Your task to perform on an android device: Search for usb-a on amazon, select the first entry, and add it to the cart. Image 0: 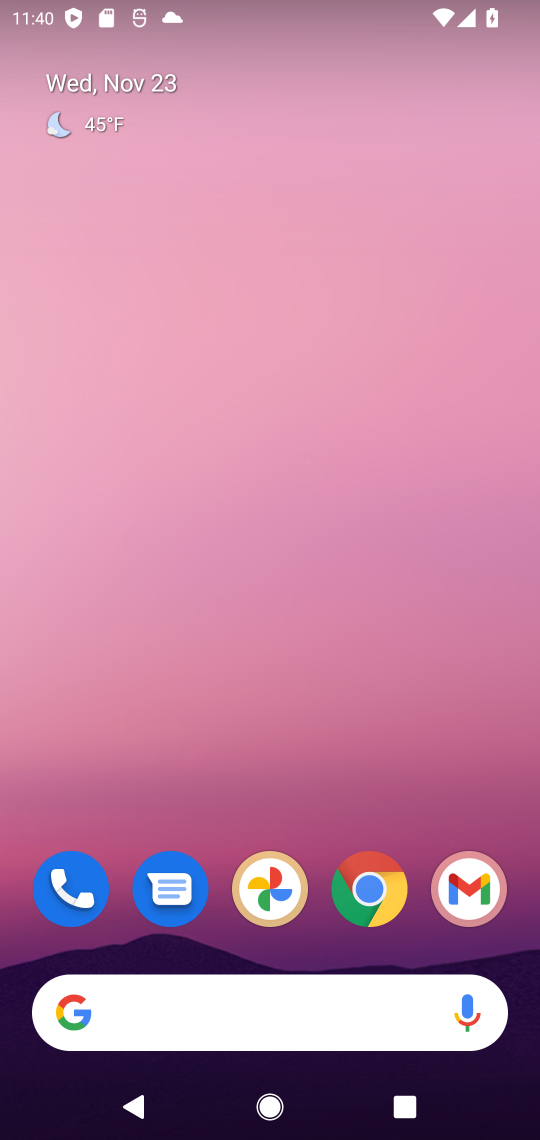
Step 0: click (370, 901)
Your task to perform on an android device: Search for usb-a on amazon, select the first entry, and add it to the cart. Image 1: 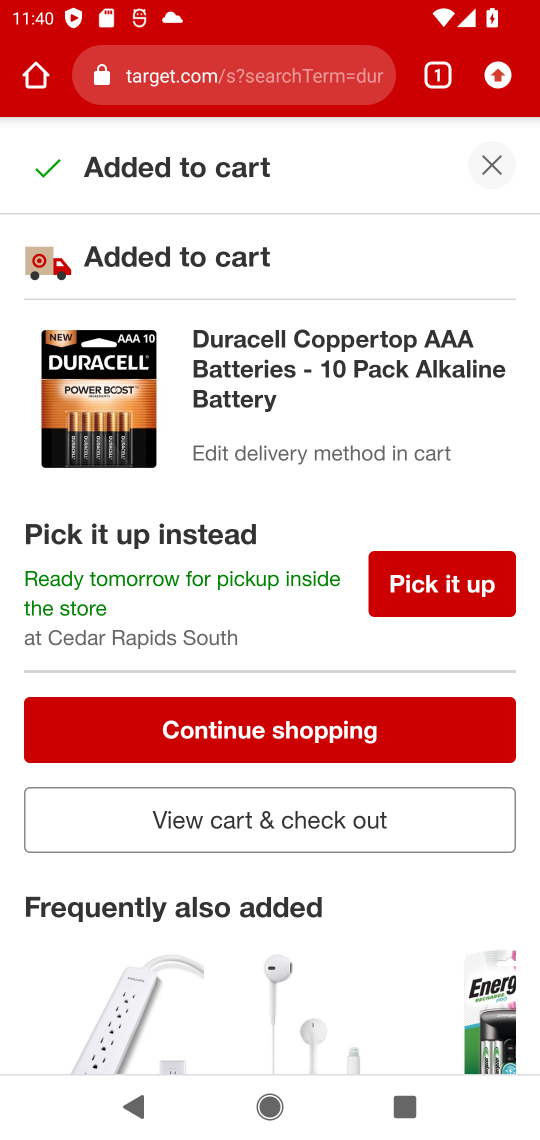
Step 1: click (199, 78)
Your task to perform on an android device: Search for usb-a on amazon, select the first entry, and add it to the cart. Image 2: 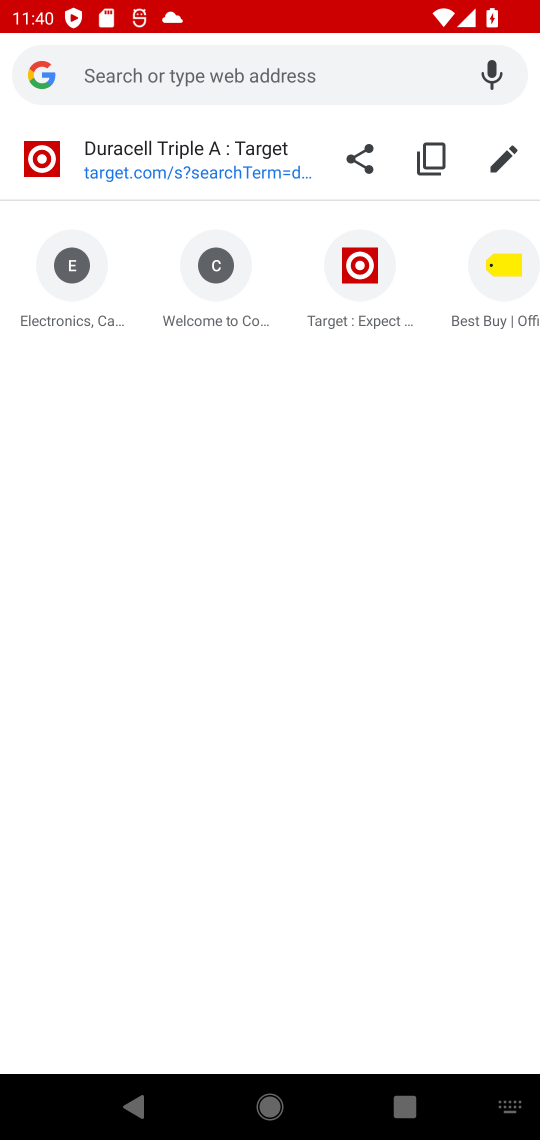
Step 2: type "amazon.com"
Your task to perform on an android device: Search for usb-a on amazon, select the first entry, and add it to the cart. Image 3: 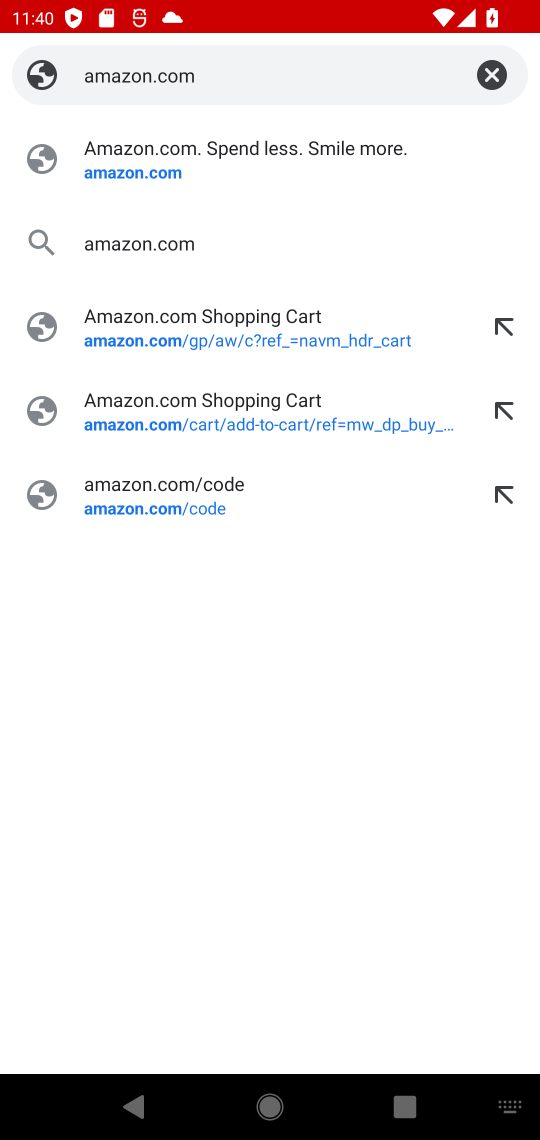
Step 3: click (124, 182)
Your task to perform on an android device: Search for usb-a on amazon, select the first entry, and add it to the cart. Image 4: 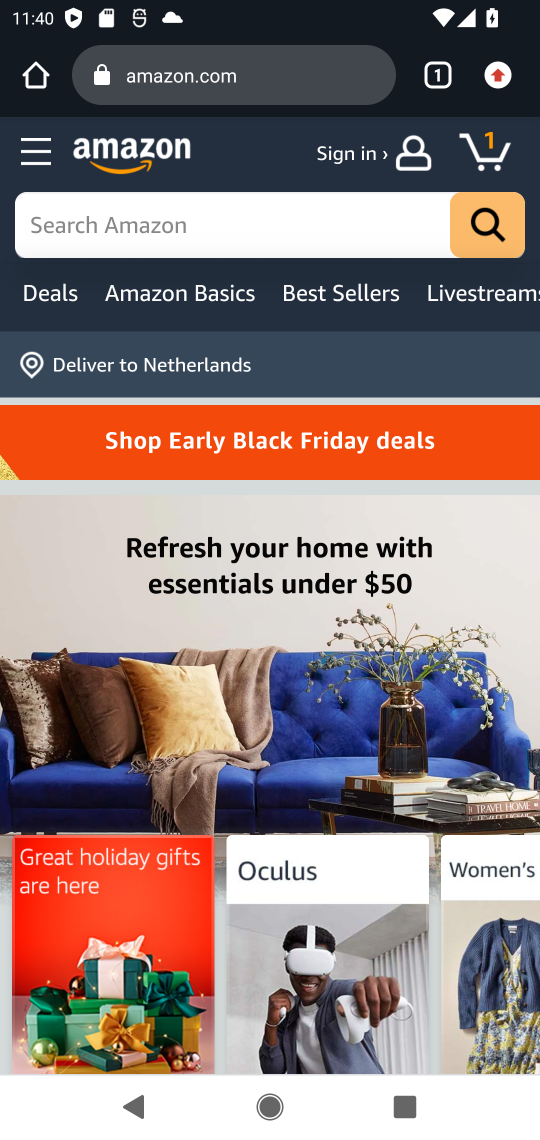
Step 4: click (121, 233)
Your task to perform on an android device: Search for usb-a on amazon, select the first entry, and add it to the cart. Image 5: 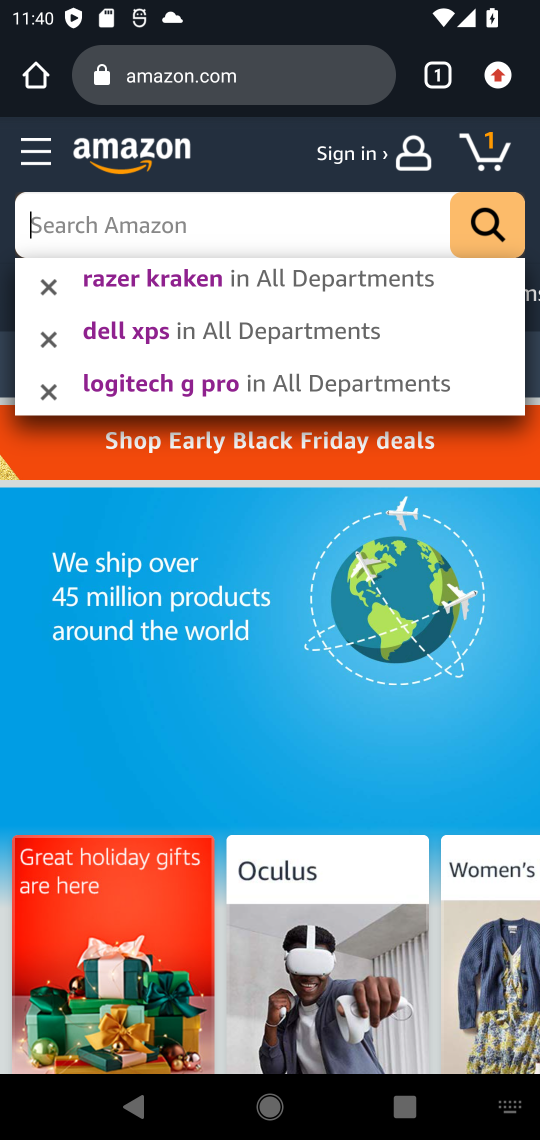
Step 5: type "usb-a "
Your task to perform on an android device: Search for usb-a on amazon, select the first entry, and add it to the cart. Image 6: 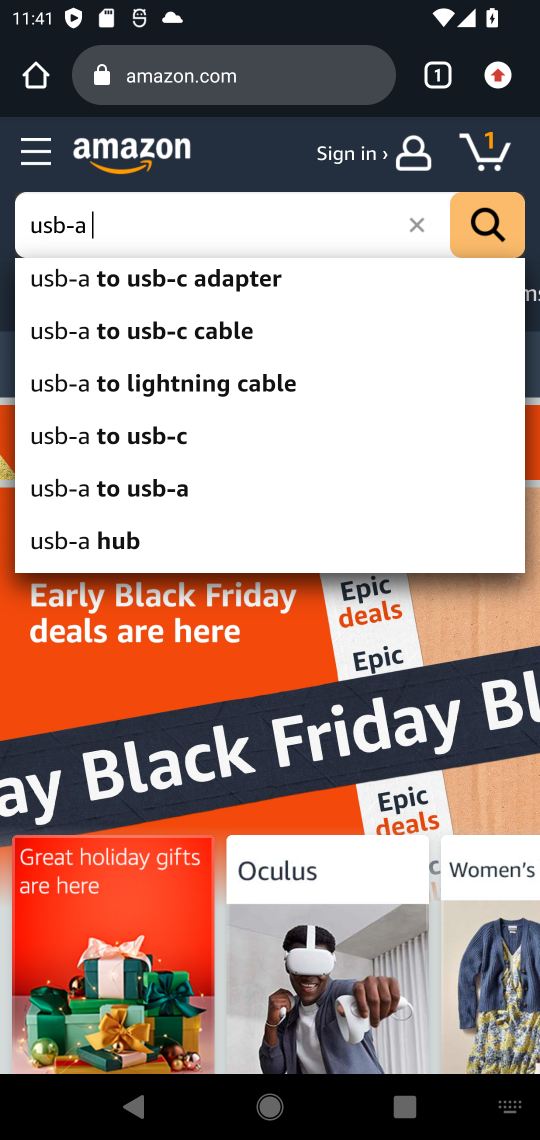
Step 6: click (484, 234)
Your task to perform on an android device: Search for usb-a on amazon, select the first entry, and add it to the cart. Image 7: 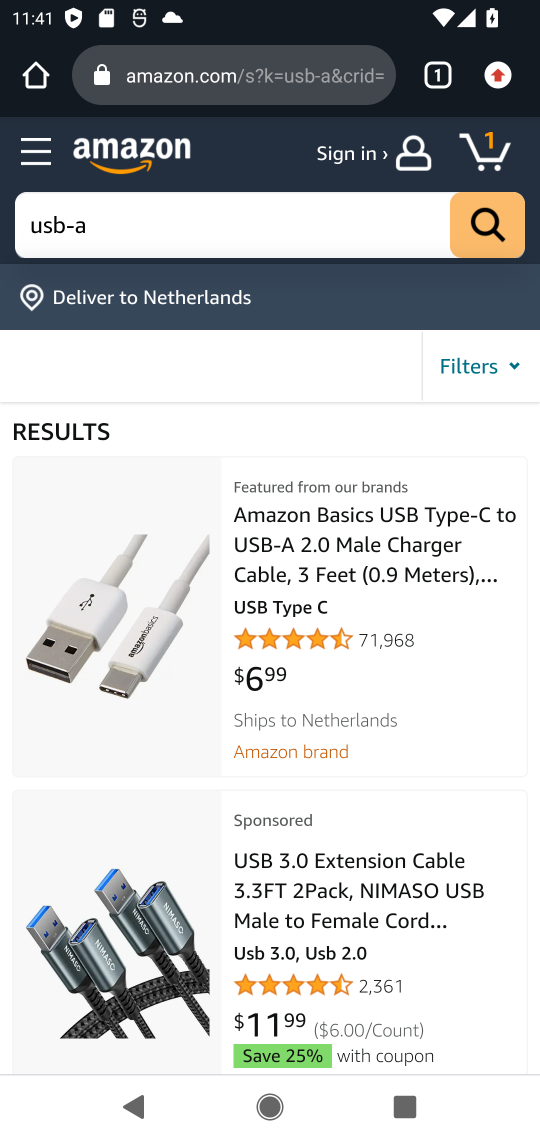
Step 7: click (102, 617)
Your task to perform on an android device: Search for usb-a on amazon, select the first entry, and add it to the cart. Image 8: 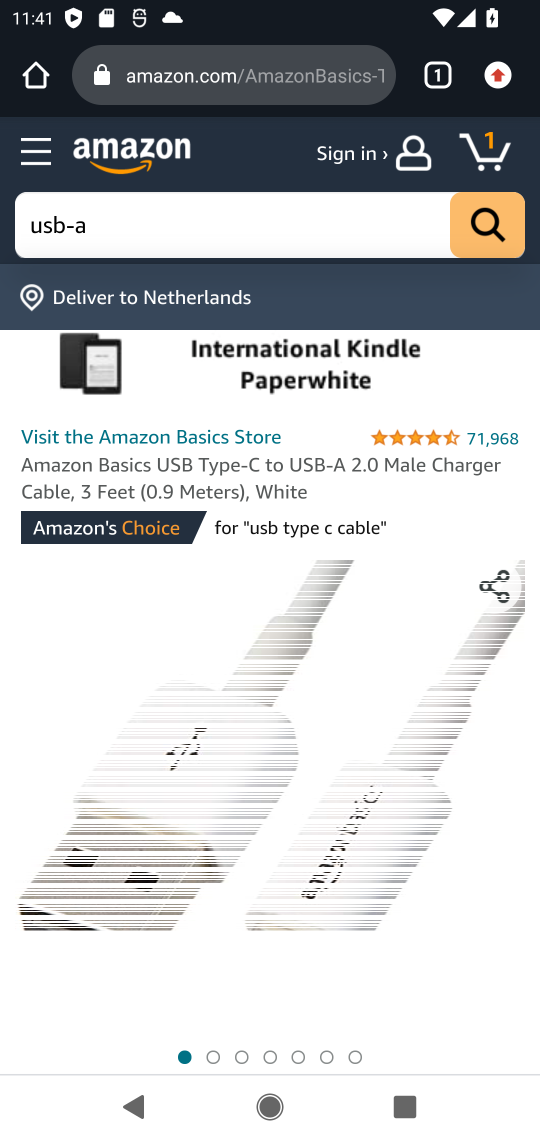
Step 8: drag from (221, 831) to (188, 542)
Your task to perform on an android device: Search for usb-a on amazon, select the first entry, and add it to the cart. Image 9: 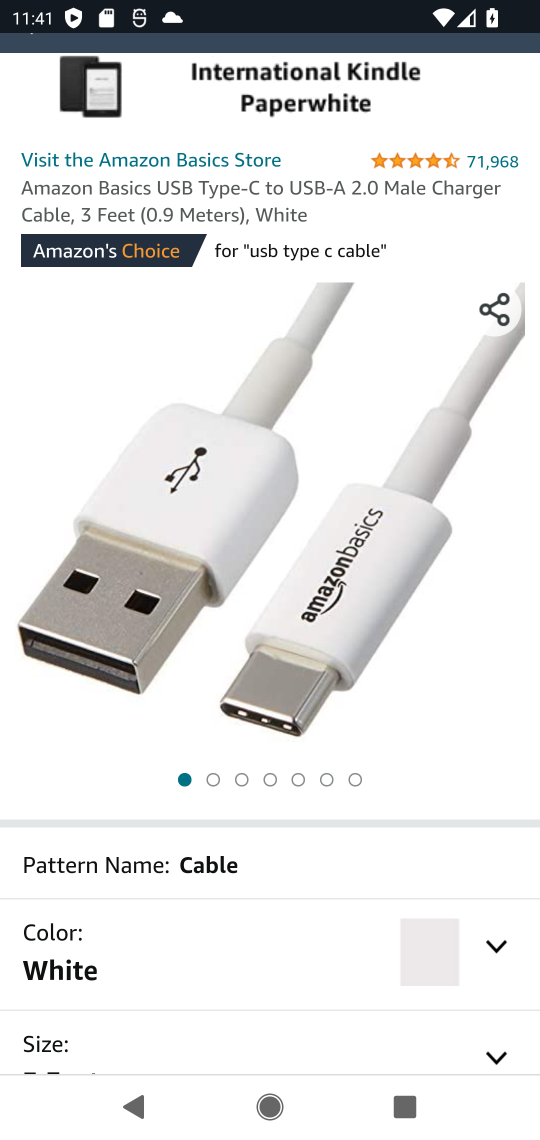
Step 9: drag from (231, 848) to (198, 402)
Your task to perform on an android device: Search for usb-a on amazon, select the first entry, and add it to the cart. Image 10: 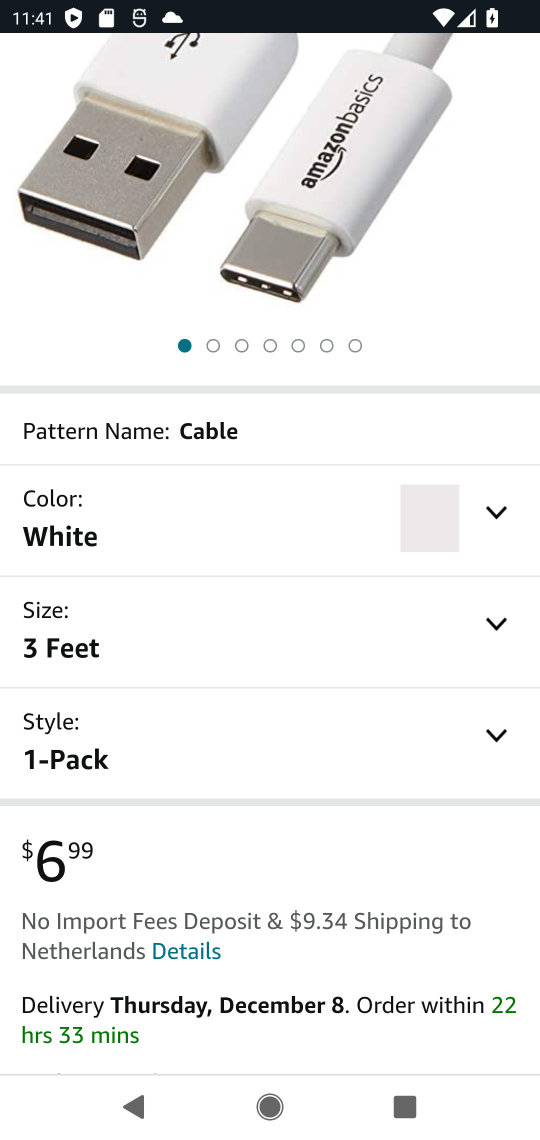
Step 10: drag from (213, 705) to (195, 434)
Your task to perform on an android device: Search for usb-a on amazon, select the first entry, and add it to the cart. Image 11: 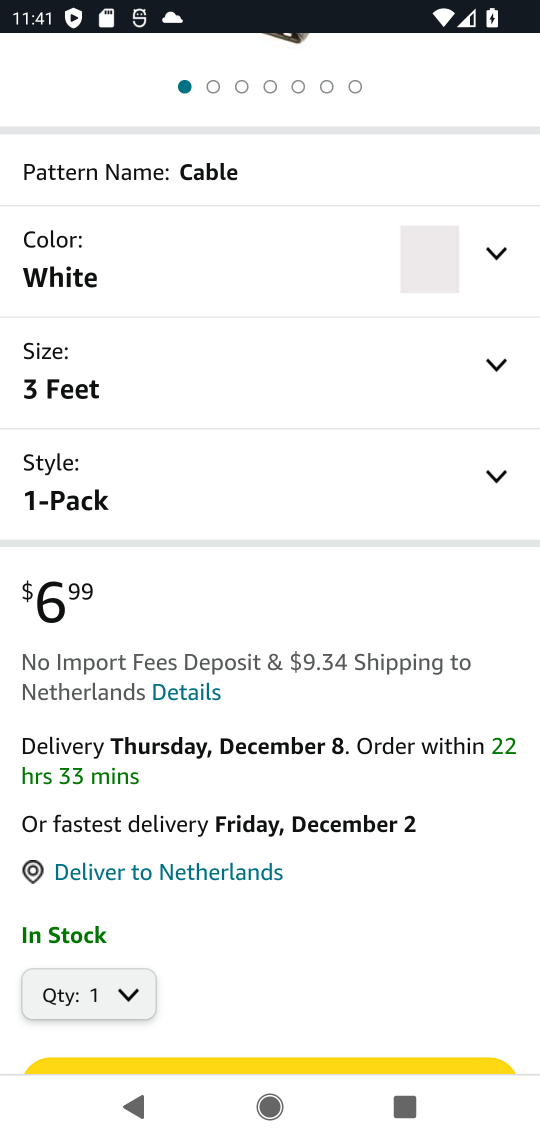
Step 11: drag from (222, 865) to (212, 513)
Your task to perform on an android device: Search for usb-a on amazon, select the first entry, and add it to the cart. Image 12: 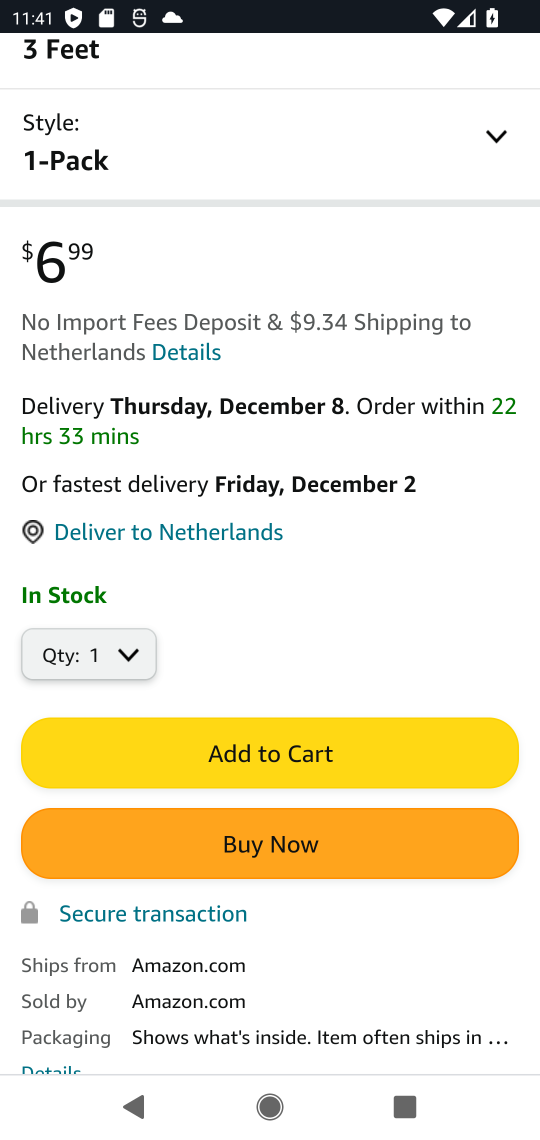
Step 12: click (226, 751)
Your task to perform on an android device: Search for usb-a on amazon, select the first entry, and add it to the cart. Image 13: 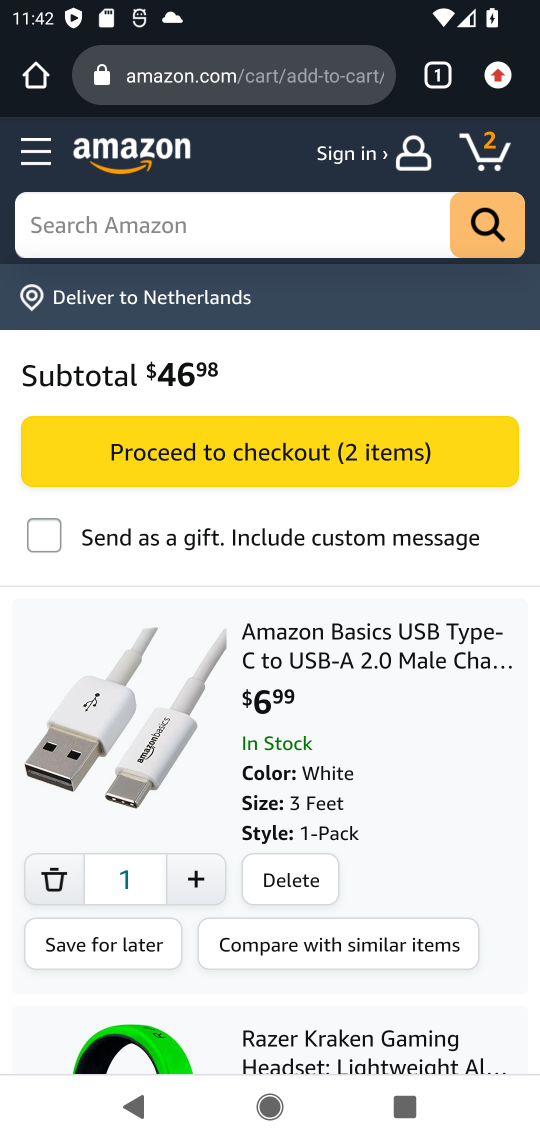
Step 13: task complete